Your task to perform on an android device: Go to display settings Image 0: 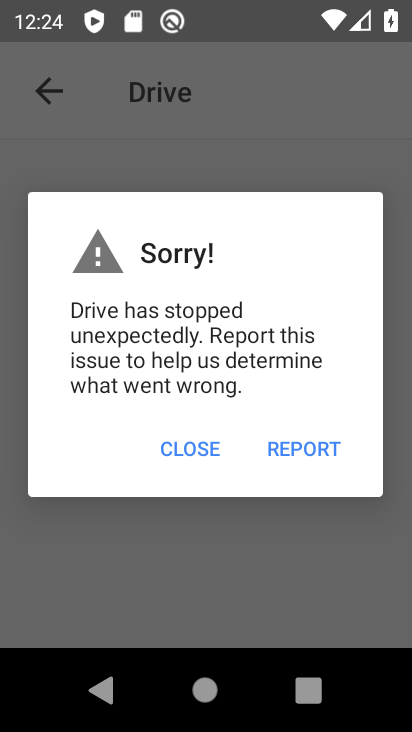
Step 0: press home button
Your task to perform on an android device: Go to display settings Image 1: 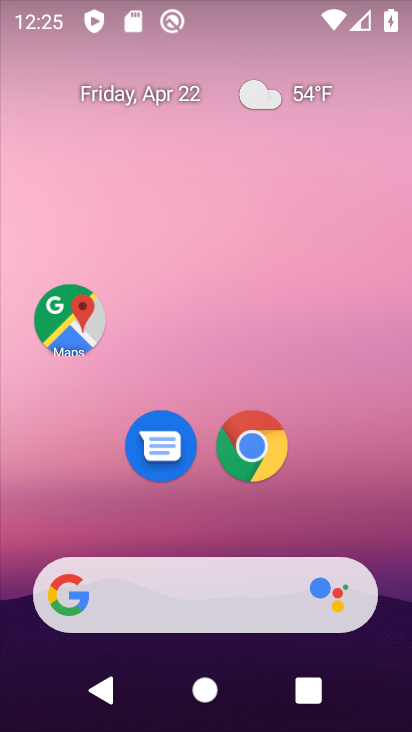
Step 1: drag from (366, 535) to (315, 223)
Your task to perform on an android device: Go to display settings Image 2: 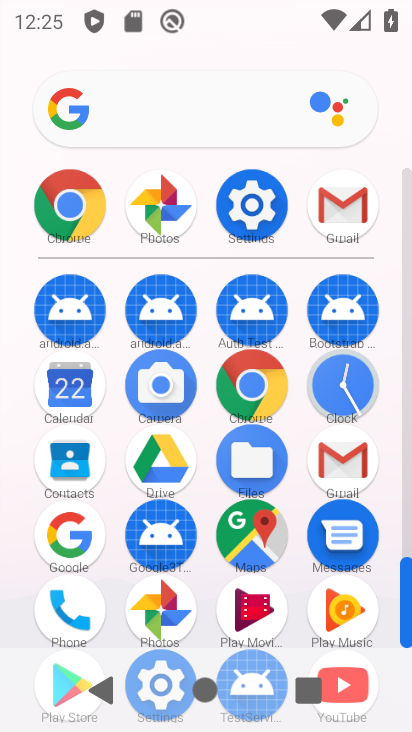
Step 2: click (254, 203)
Your task to perform on an android device: Go to display settings Image 3: 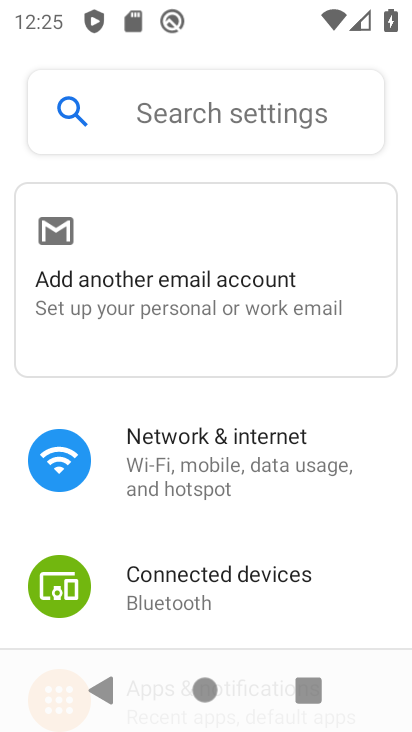
Step 3: drag from (241, 509) to (247, 35)
Your task to perform on an android device: Go to display settings Image 4: 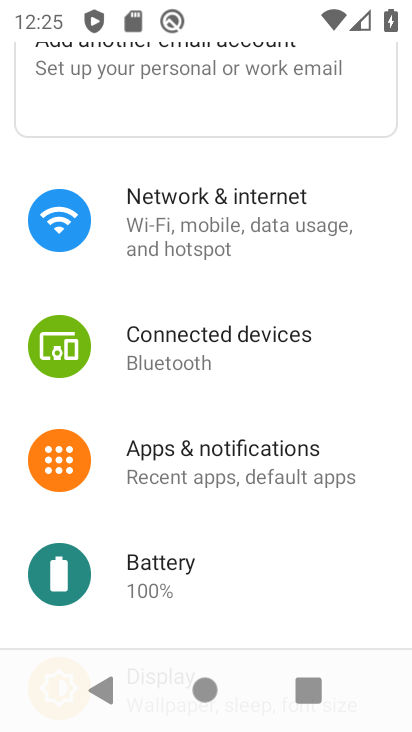
Step 4: drag from (270, 639) to (250, 385)
Your task to perform on an android device: Go to display settings Image 5: 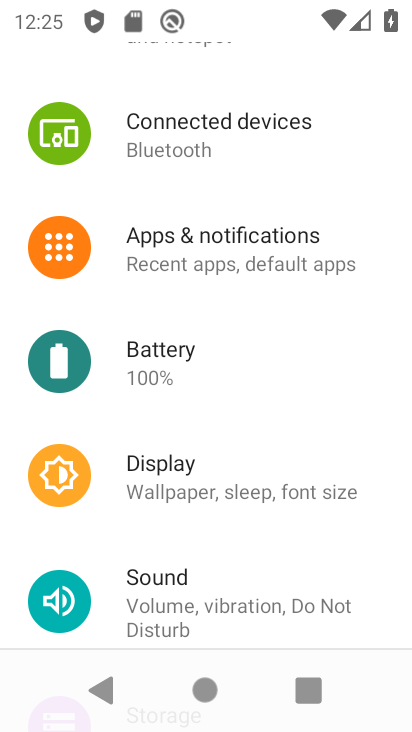
Step 5: click (236, 495)
Your task to perform on an android device: Go to display settings Image 6: 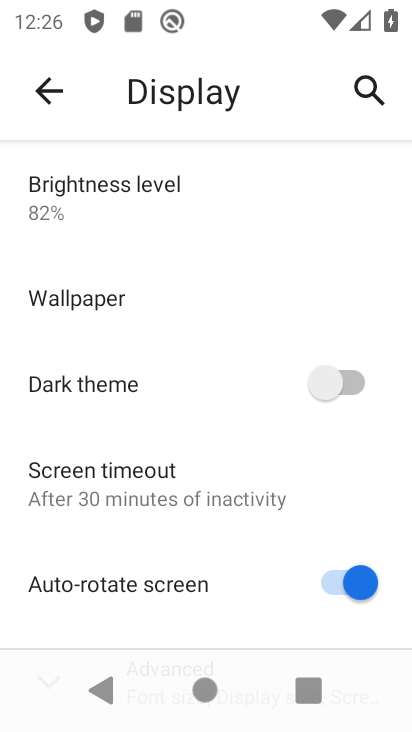
Step 6: task complete